Your task to perform on an android device: toggle location history Image 0: 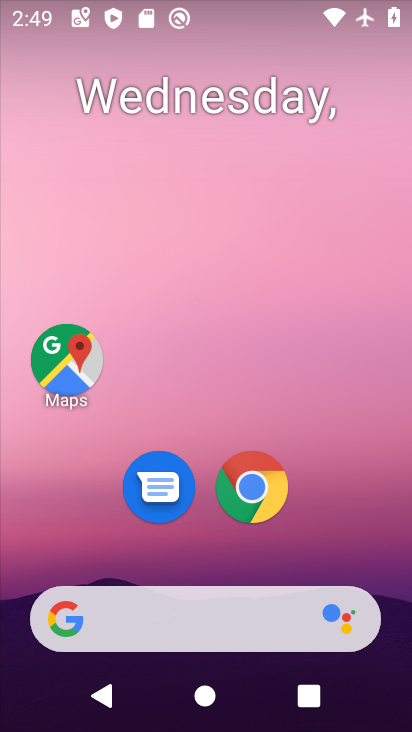
Step 0: drag from (309, 469) to (358, 139)
Your task to perform on an android device: toggle location history Image 1: 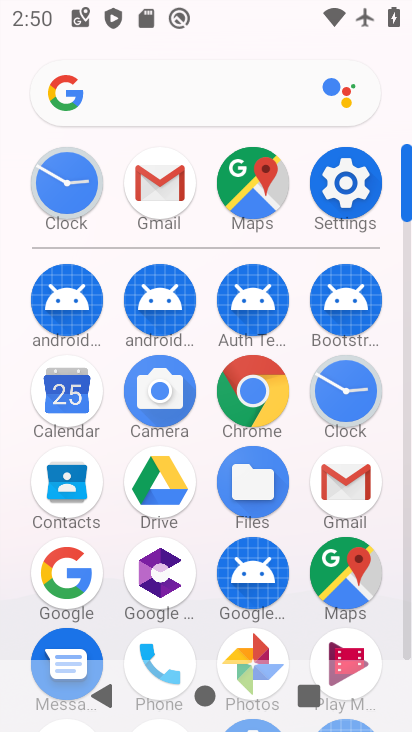
Step 1: click (253, 400)
Your task to perform on an android device: toggle location history Image 2: 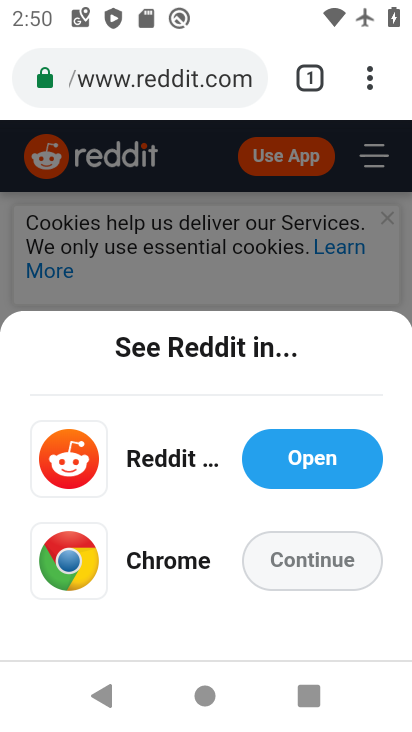
Step 2: drag from (376, 108) to (372, 282)
Your task to perform on an android device: toggle location history Image 3: 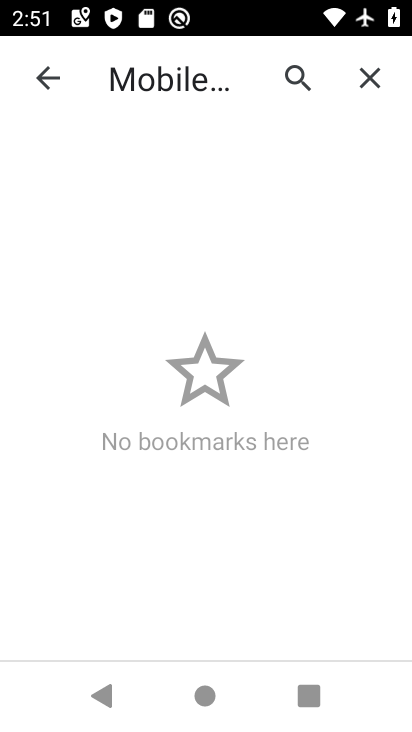
Step 3: click (39, 95)
Your task to perform on an android device: toggle location history Image 4: 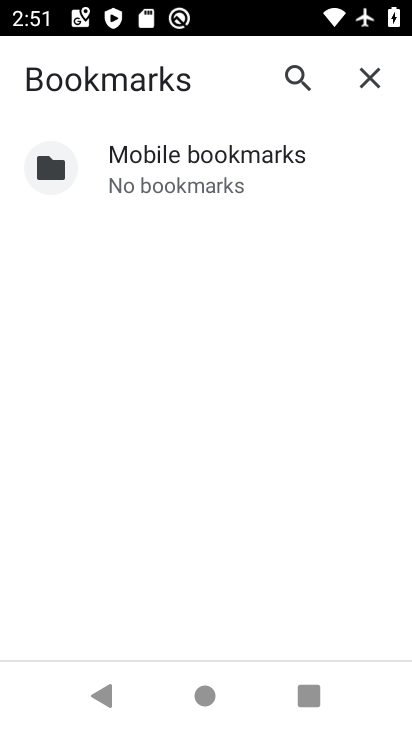
Step 4: press home button
Your task to perform on an android device: toggle location history Image 5: 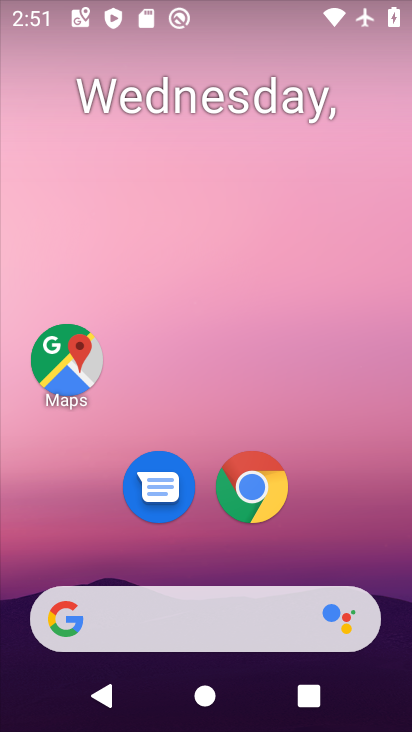
Step 5: drag from (370, 354) to (355, 126)
Your task to perform on an android device: toggle location history Image 6: 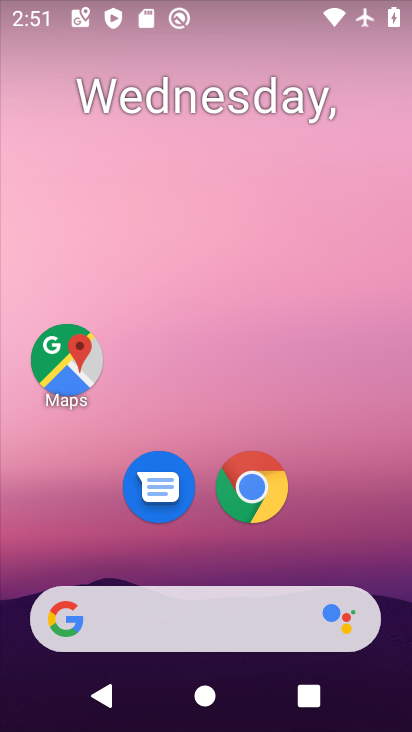
Step 6: drag from (341, 562) to (293, 143)
Your task to perform on an android device: toggle location history Image 7: 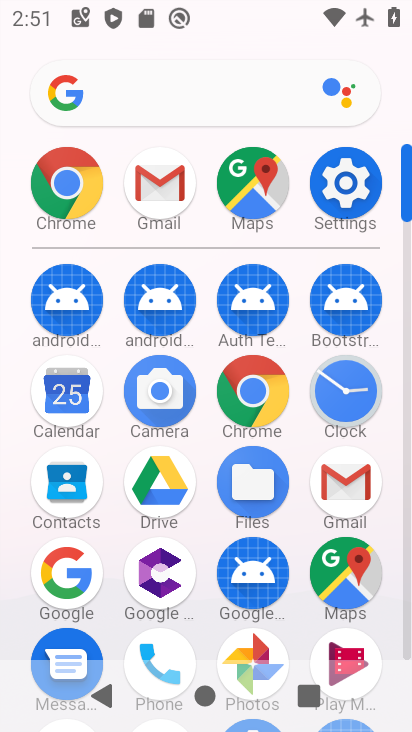
Step 7: click (346, 206)
Your task to perform on an android device: toggle location history Image 8: 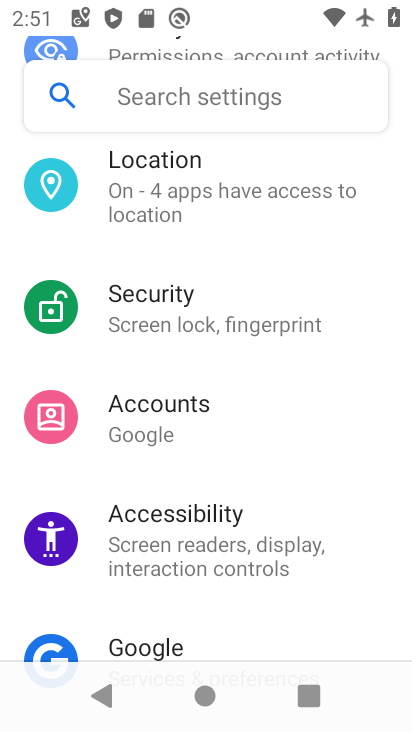
Step 8: drag from (206, 607) to (238, 172)
Your task to perform on an android device: toggle location history Image 9: 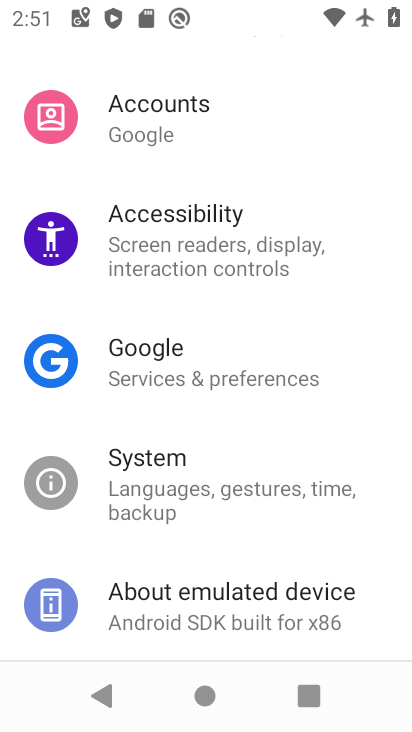
Step 9: drag from (256, 630) to (278, 129)
Your task to perform on an android device: toggle location history Image 10: 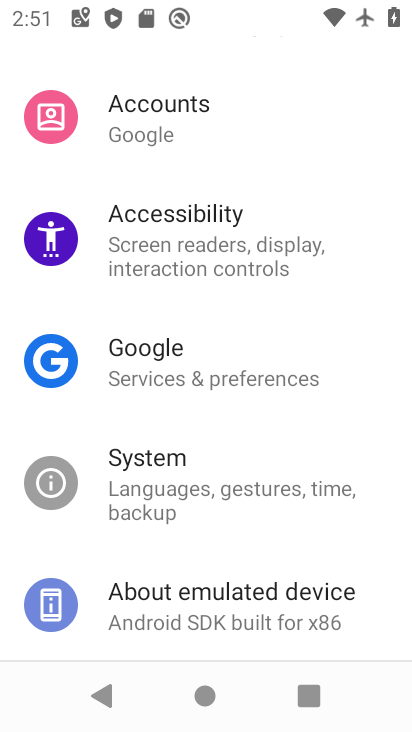
Step 10: drag from (222, 592) to (245, 138)
Your task to perform on an android device: toggle location history Image 11: 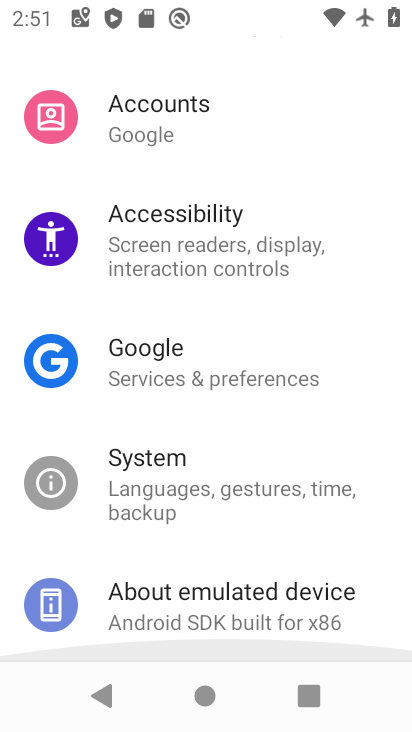
Step 11: drag from (247, 151) to (248, 615)
Your task to perform on an android device: toggle location history Image 12: 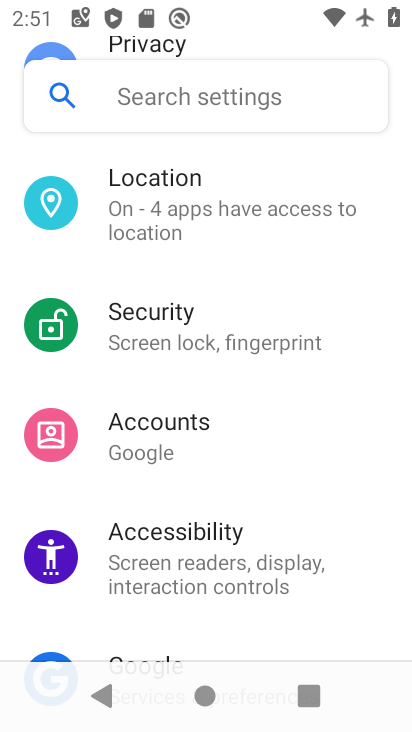
Step 12: drag from (217, 243) to (292, 606)
Your task to perform on an android device: toggle location history Image 13: 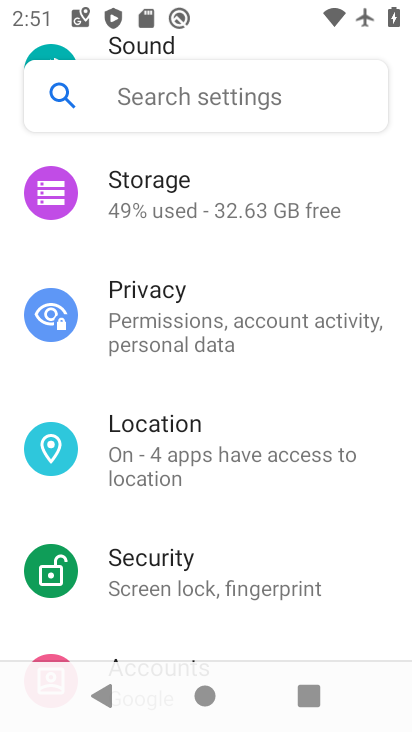
Step 13: click (161, 457)
Your task to perform on an android device: toggle location history Image 14: 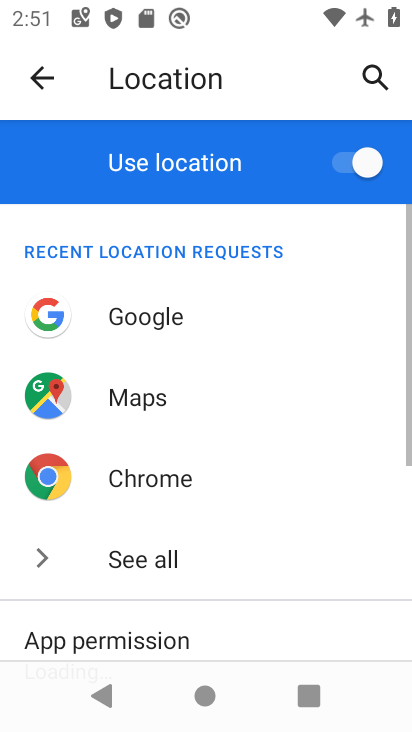
Step 14: drag from (194, 600) to (207, 191)
Your task to perform on an android device: toggle location history Image 15: 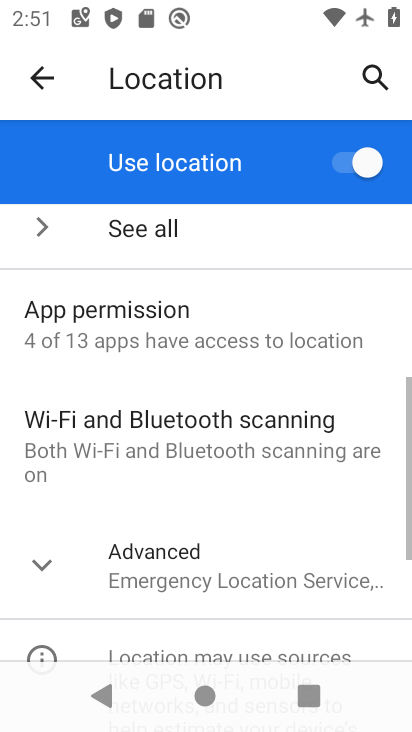
Step 15: drag from (211, 585) to (234, 127)
Your task to perform on an android device: toggle location history Image 16: 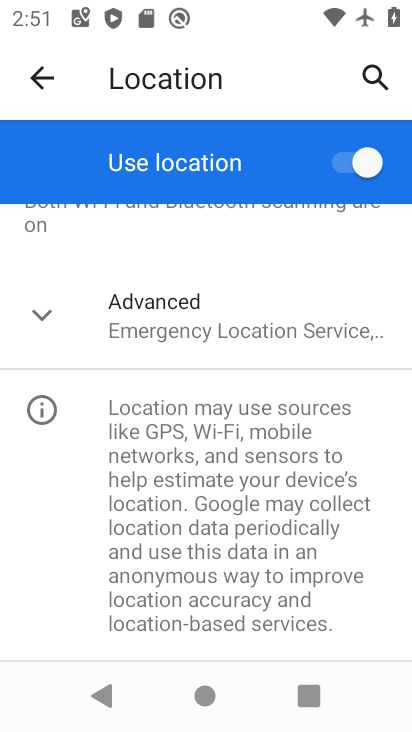
Step 16: click (137, 332)
Your task to perform on an android device: toggle location history Image 17: 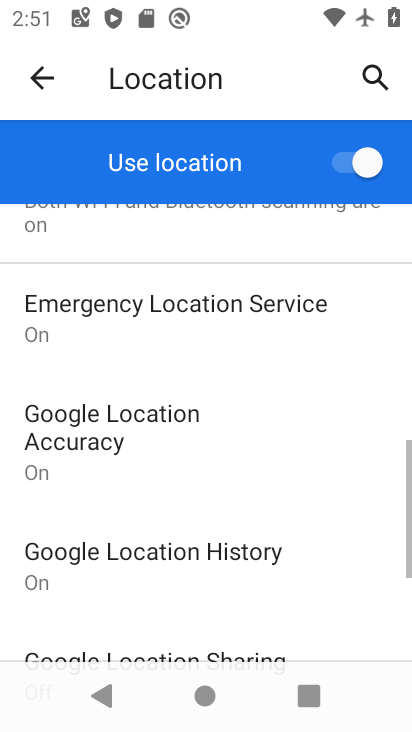
Step 17: drag from (197, 614) to (166, 225)
Your task to perform on an android device: toggle location history Image 18: 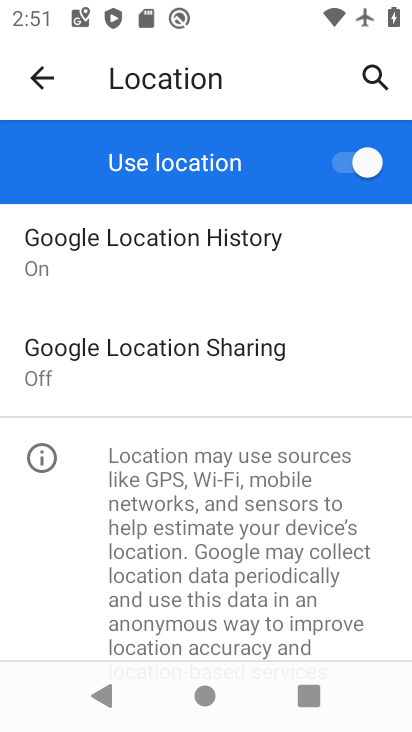
Step 18: click (152, 251)
Your task to perform on an android device: toggle location history Image 19: 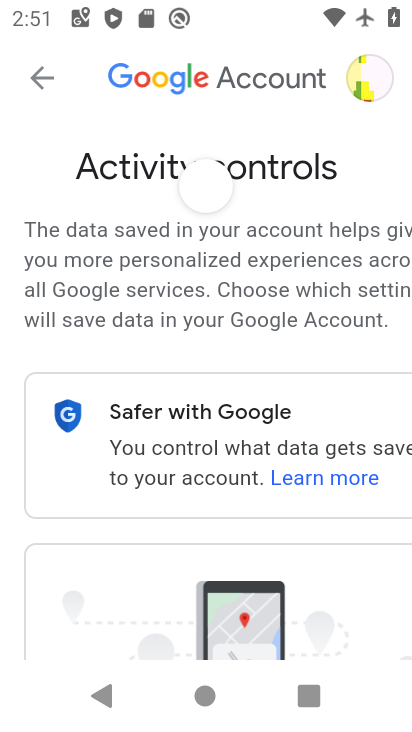
Step 19: drag from (273, 611) to (228, 183)
Your task to perform on an android device: toggle location history Image 20: 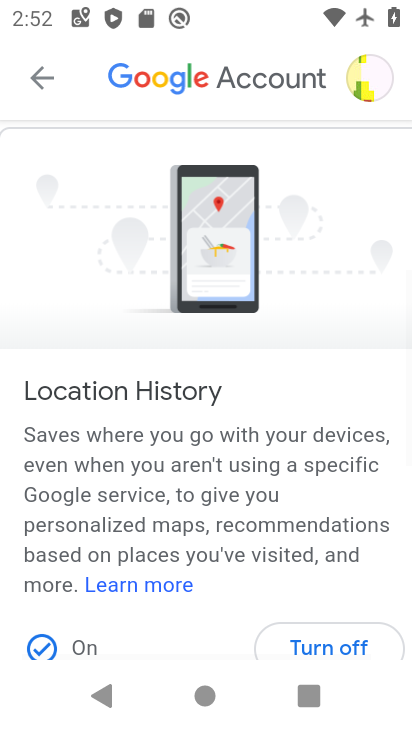
Step 20: drag from (259, 506) to (262, 76)
Your task to perform on an android device: toggle location history Image 21: 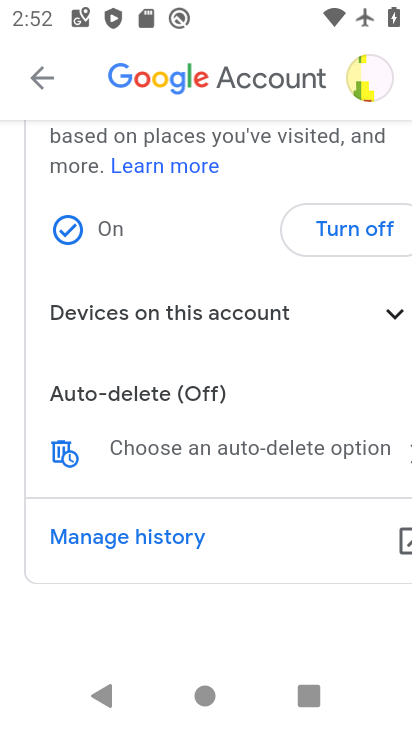
Step 21: click (342, 235)
Your task to perform on an android device: toggle location history Image 22: 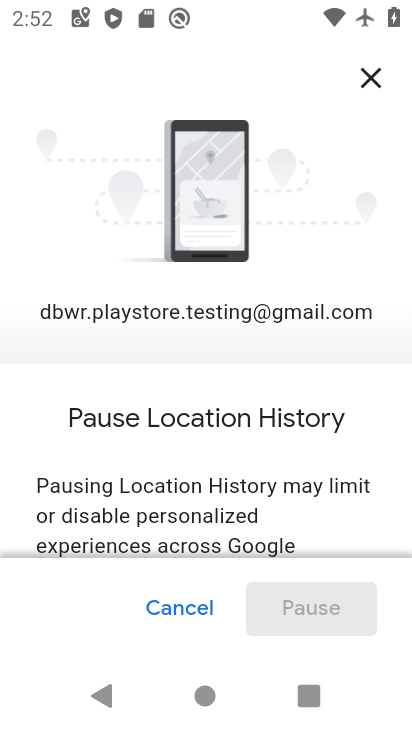
Step 22: drag from (348, 526) to (316, 109)
Your task to perform on an android device: toggle location history Image 23: 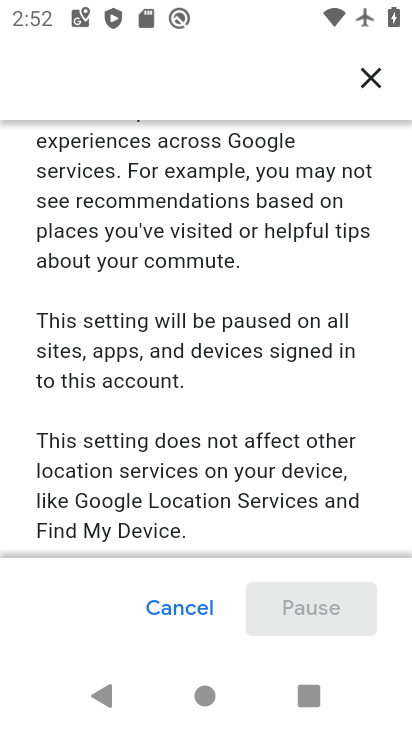
Step 23: drag from (309, 496) to (363, 123)
Your task to perform on an android device: toggle location history Image 24: 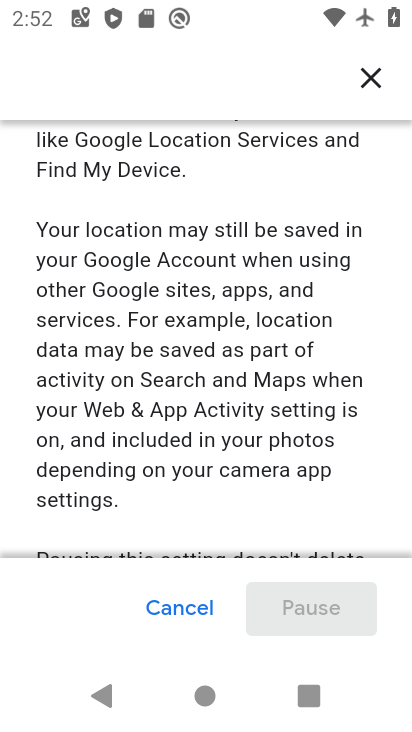
Step 24: drag from (345, 530) to (377, 144)
Your task to perform on an android device: toggle location history Image 25: 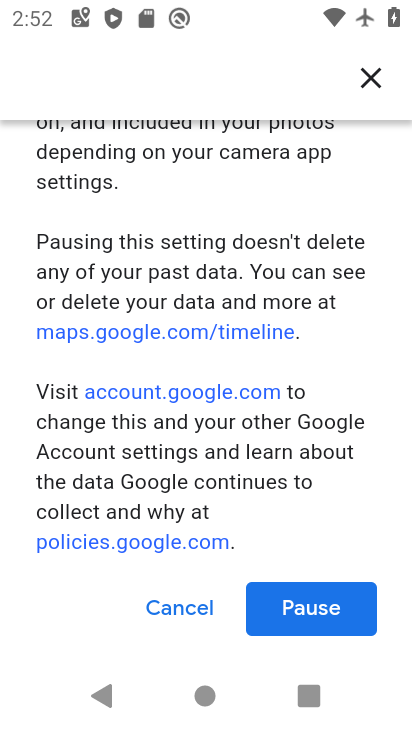
Step 25: click (328, 613)
Your task to perform on an android device: toggle location history Image 26: 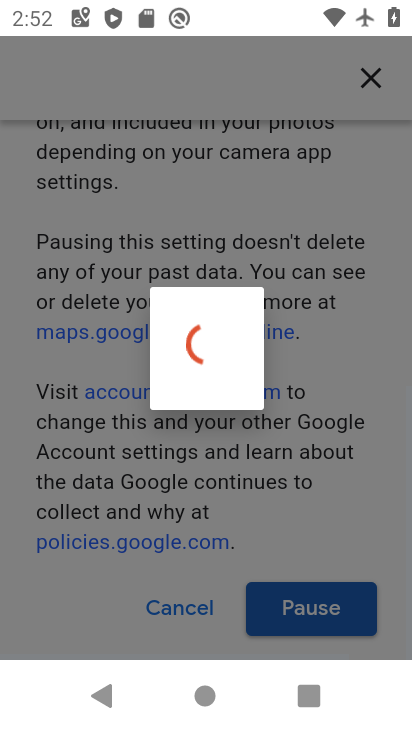
Step 26: click (328, 613)
Your task to perform on an android device: toggle location history Image 27: 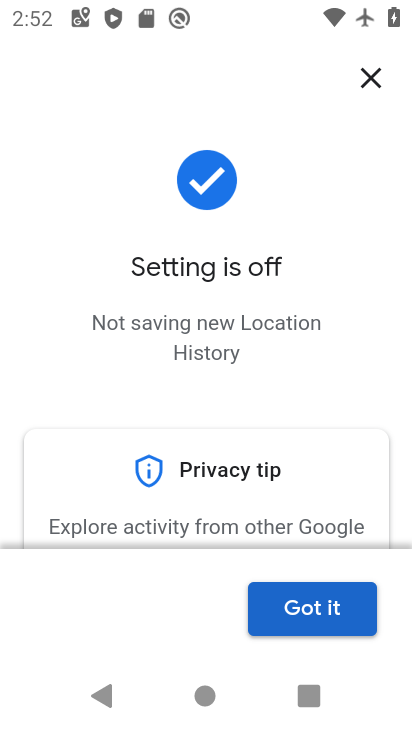
Step 27: task complete